Your task to perform on an android device: turn off notifications in google photos Image 0: 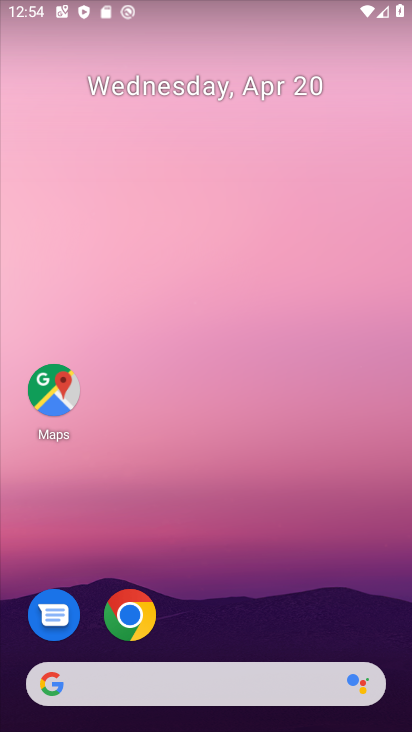
Step 0: drag from (123, 283) to (385, 286)
Your task to perform on an android device: turn off notifications in google photos Image 1: 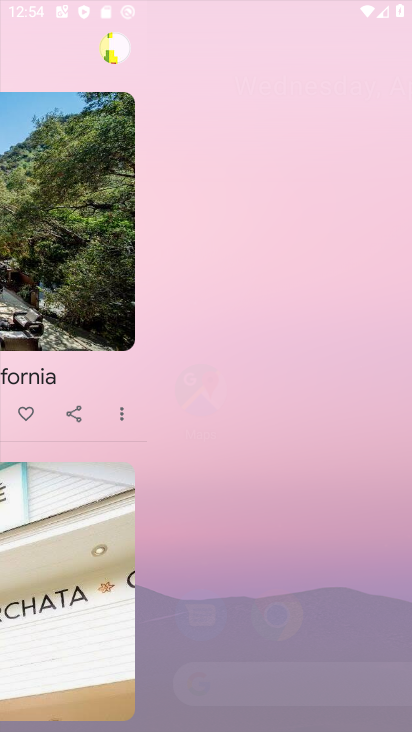
Step 1: press home button
Your task to perform on an android device: turn off notifications in google photos Image 2: 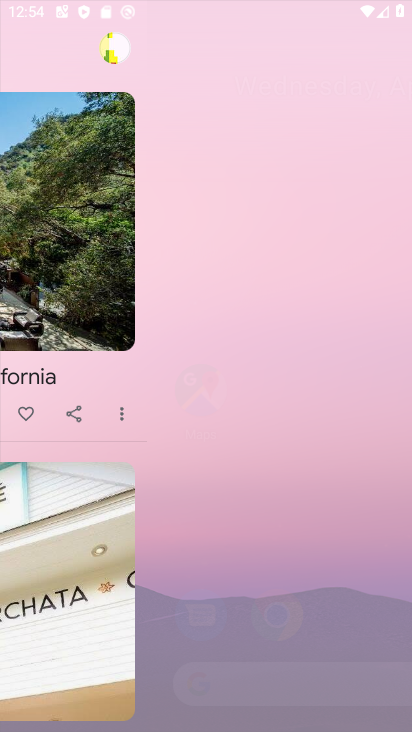
Step 2: click (379, 254)
Your task to perform on an android device: turn off notifications in google photos Image 3: 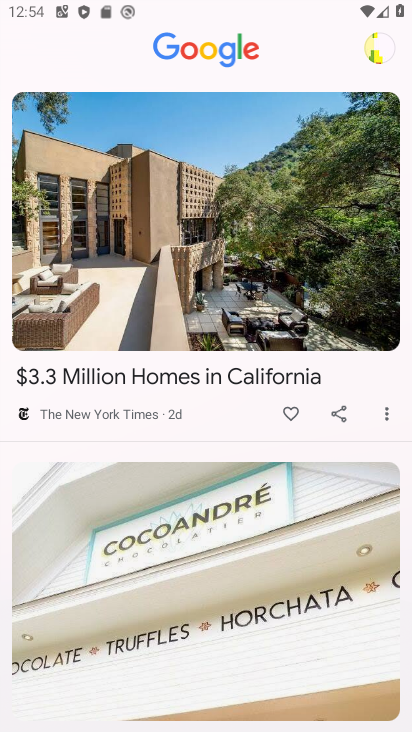
Step 3: press home button
Your task to perform on an android device: turn off notifications in google photos Image 4: 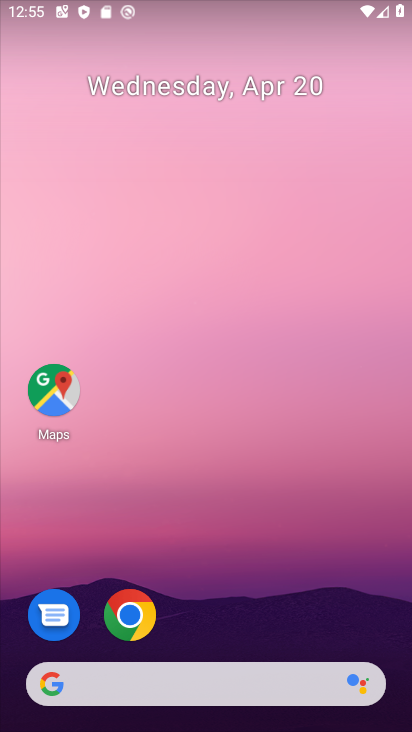
Step 4: drag from (384, 461) to (337, 176)
Your task to perform on an android device: turn off notifications in google photos Image 5: 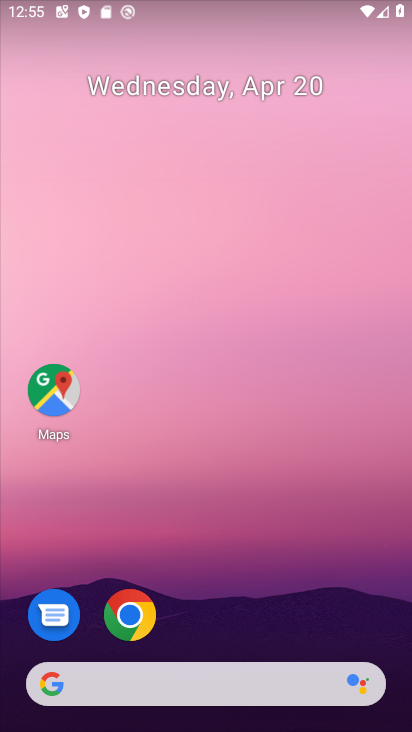
Step 5: drag from (392, 497) to (390, 149)
Your task to perform on an android device: turn off notifications in google photos Image 6: 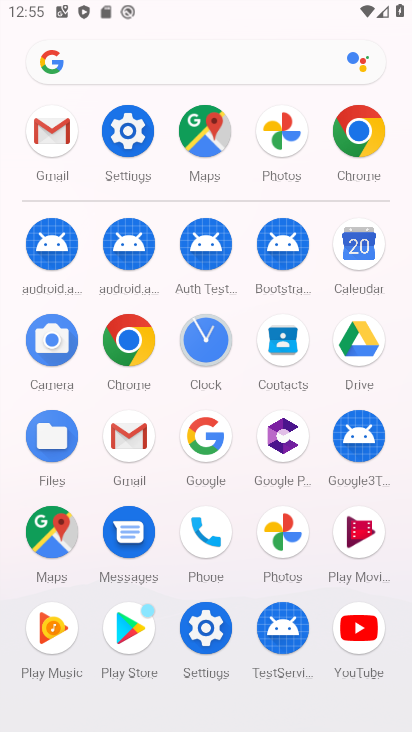
Step 6: click (293, 134)
Your task to perform on an android device: turn off notifications in google photos Image 7: 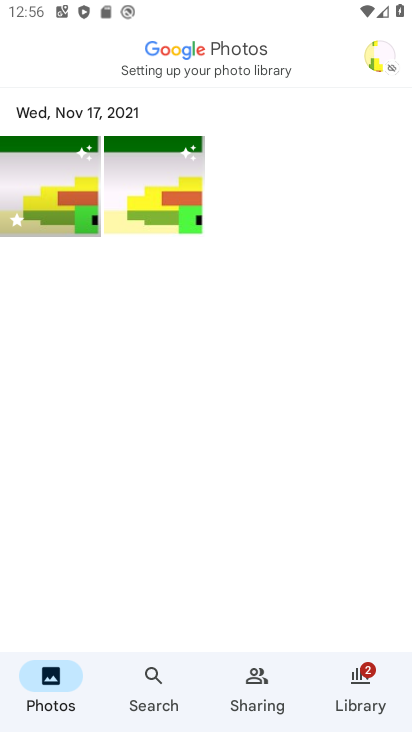
Step 7: task complete